Your task to perform on an android device: open app "Life360: Find Family & Friends" (install if not already installed) and go to login screen Image 0: 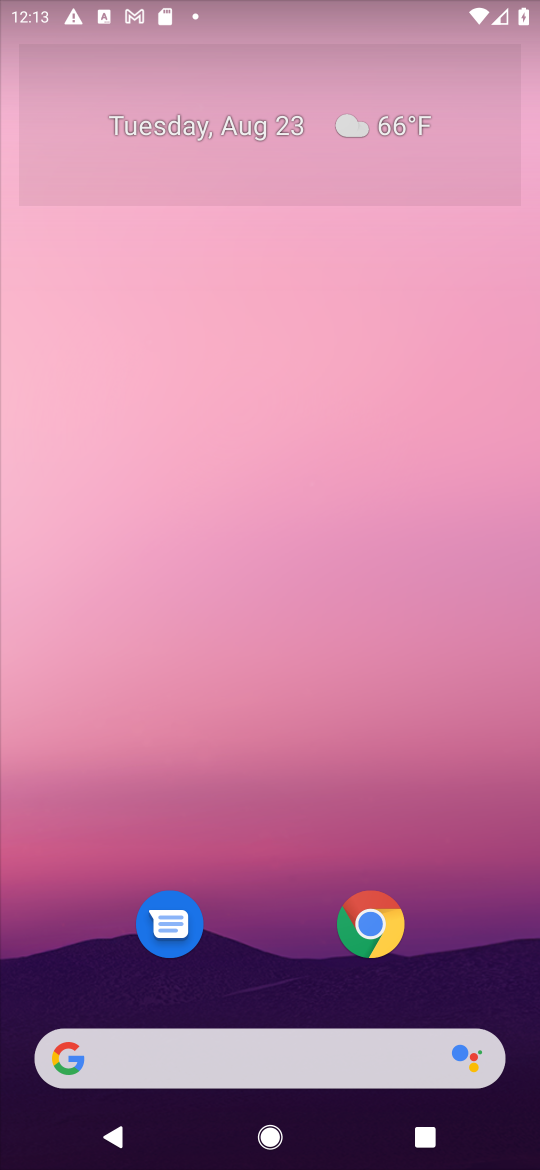
Step 0: press home button
Your task to perform on an android device: open app "Life360: Find Family & Friends" (install if not already installed) and go to login screen Image 1: 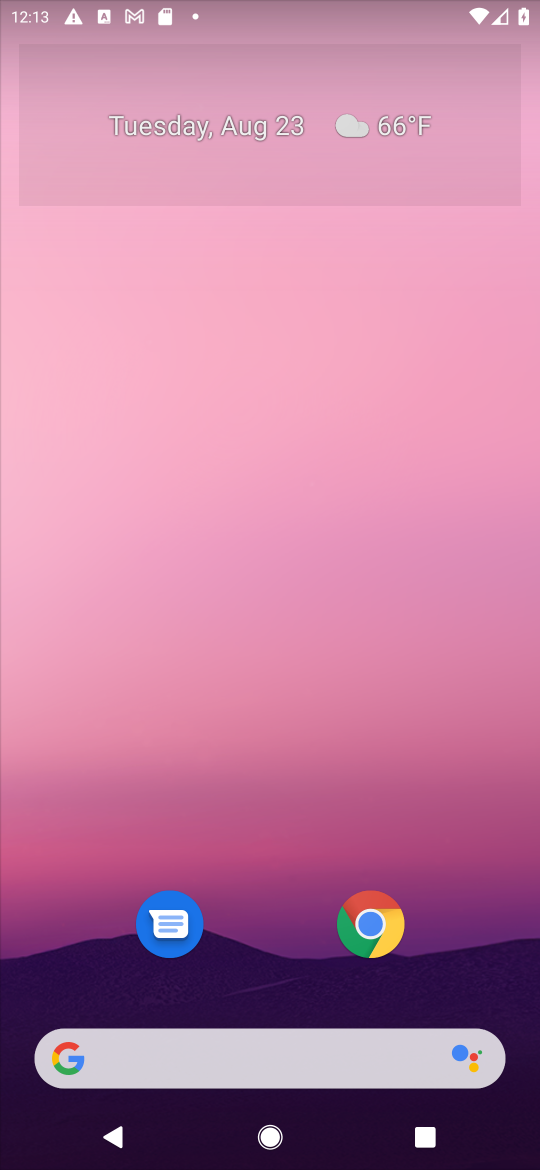
Step 1: drag from (453, 838) to (447, 170)
Your task to perform on an android device: open app "Life360: Find Family & Friends" (install if not already installed) and go to login screen Image 2: 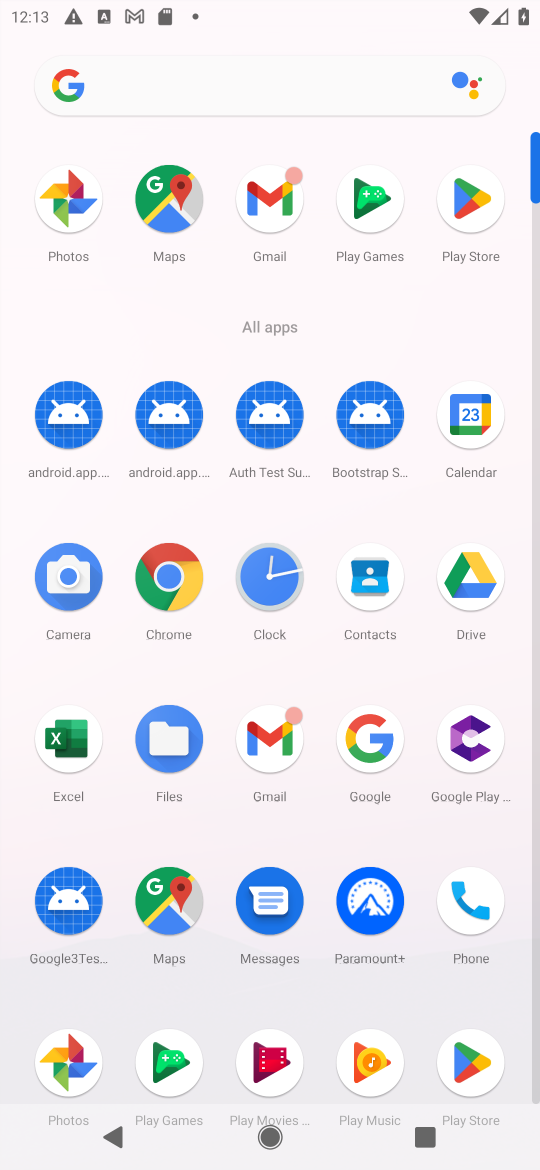
Step 2: click (464, 204)
Your task to perform on an android device: open app "Life360: Find Family & Friends" (install if not already installed) and go to login screen Image 3: 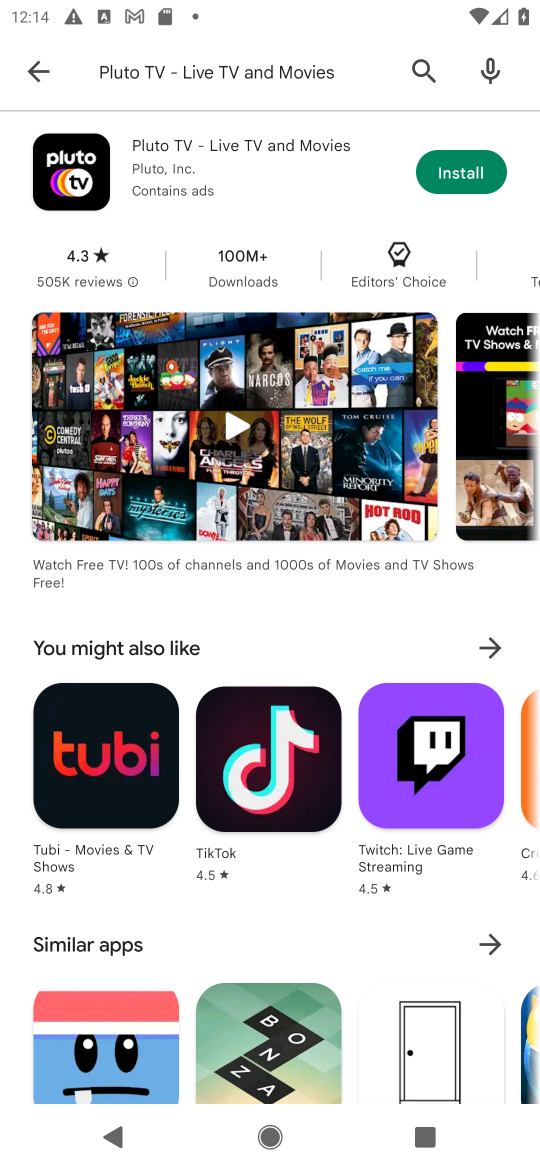
Step 3: press back button
Your task to perform on an android device: open app "Life360: Find Family & Friends" (install if not already installed) and go to login screen Image 4: 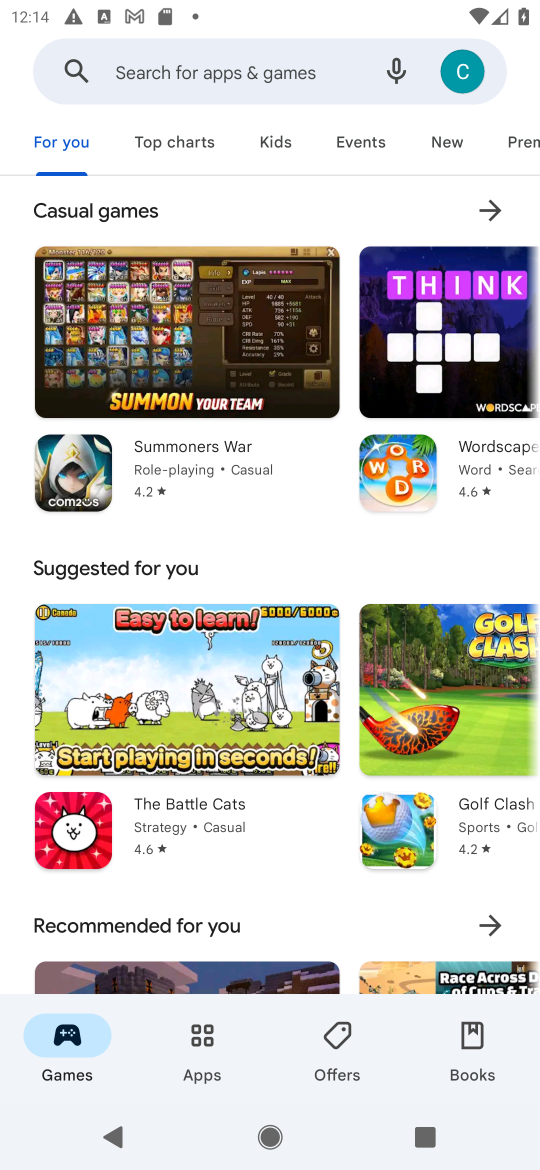
Step 4: click (190, 75)
Your task to perform on an android device: open app "Life360: Find Family & Friends" (install if not already installed) and go to login screen Image 5: 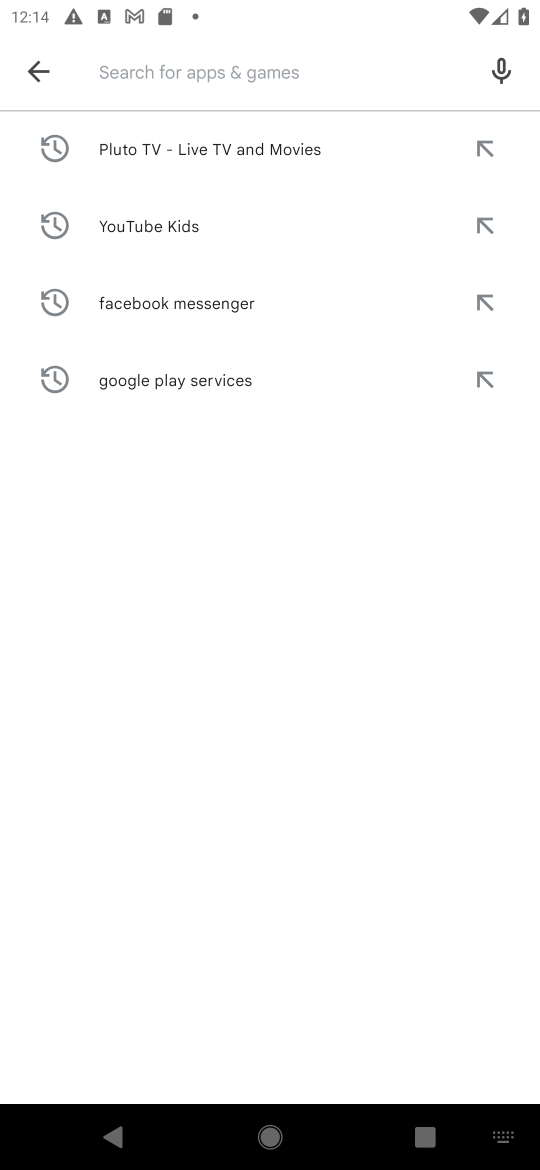
Step 5: type "Life360: Find Family & Friends"
Your task to perform on an android device: open app "Life360: Find Family & Friends" (install if not already installed) and go to login screen Image 6: 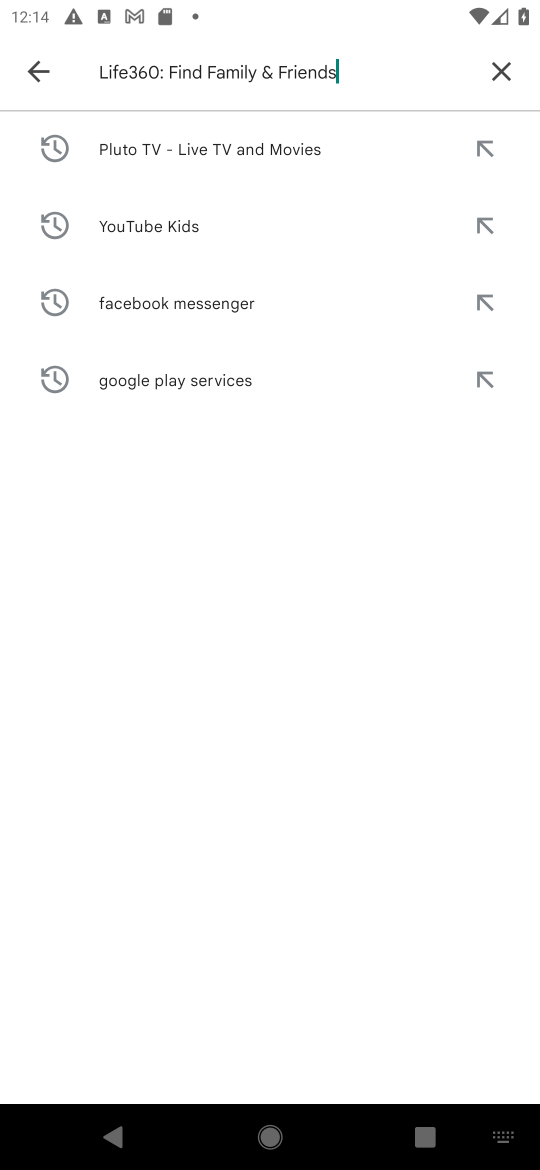
Step 6: press enter
Your task to perform on an android device: open app "Life360: Find Family & Friends" (install if not already installed) and go to login screen Image 7: 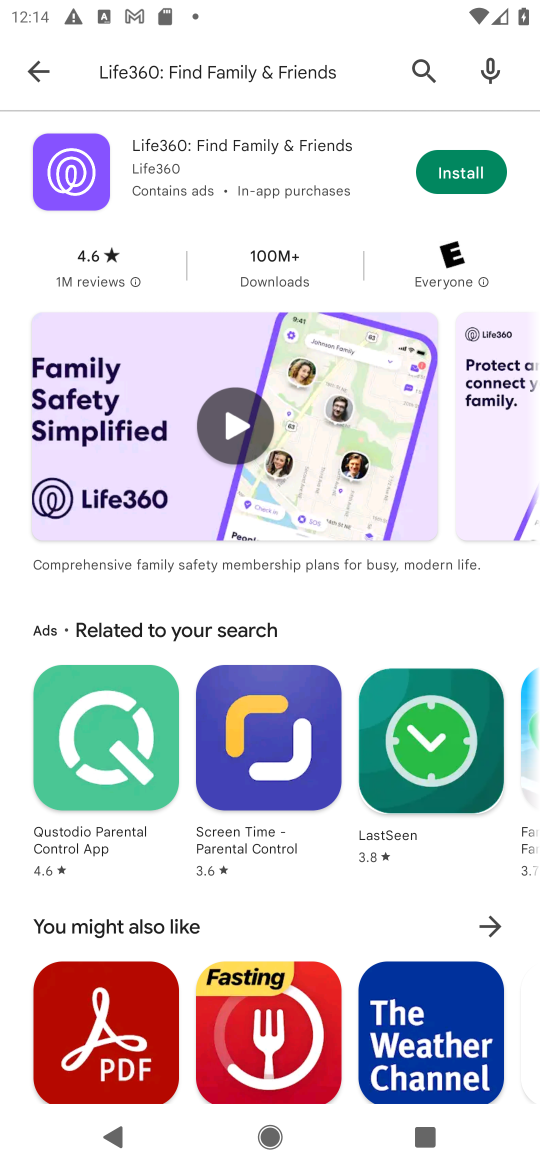
Step 7: click (477, 170)
Your task to perform on an android device: open app "Life360: Find Family & Friends" (install if not already installed) and go to login screen Image 8: 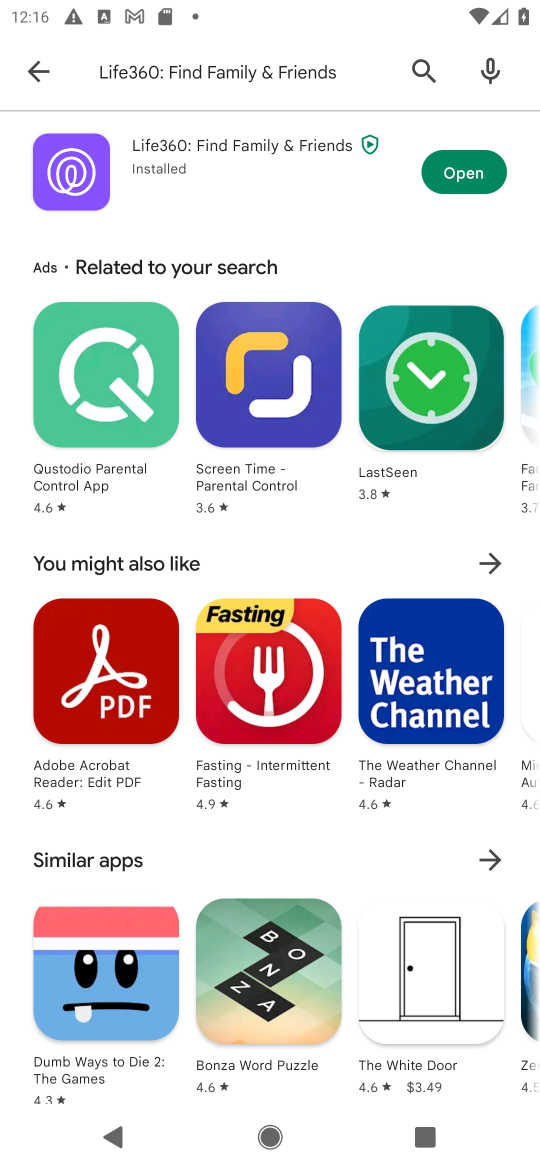
Step 8: click (457, 181)
Your task to perform on an android device: open app "Life360: Find Family & Friends" (install if not already installed) and go to login screen Image 9: 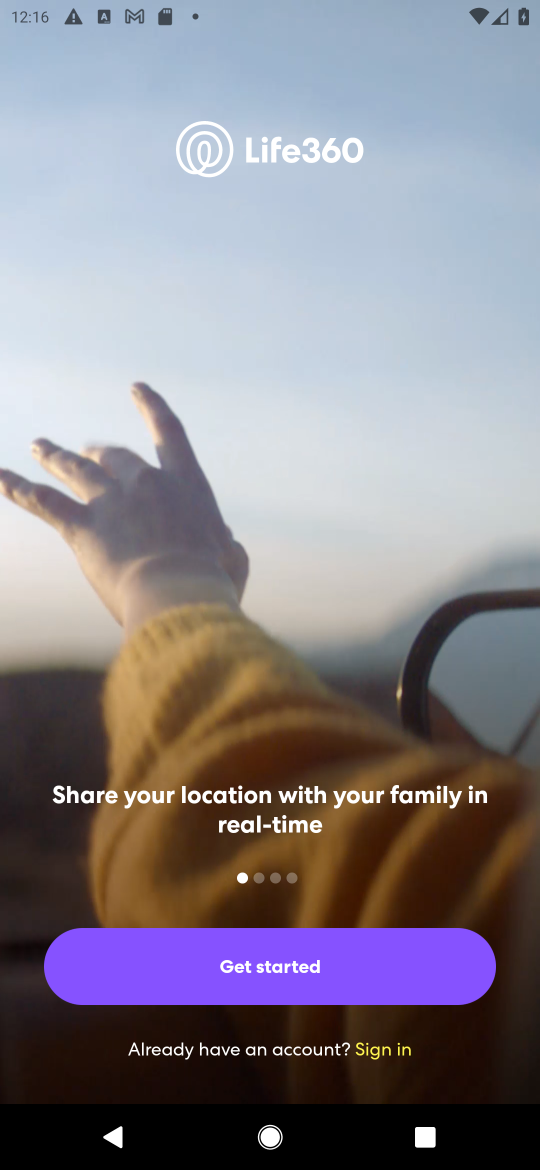
Step 9: click (295, 976)
Your task to perform on an android device: open app "Life360: Find Family & Friends" (install if not already installed) and go to login screen Image 10: 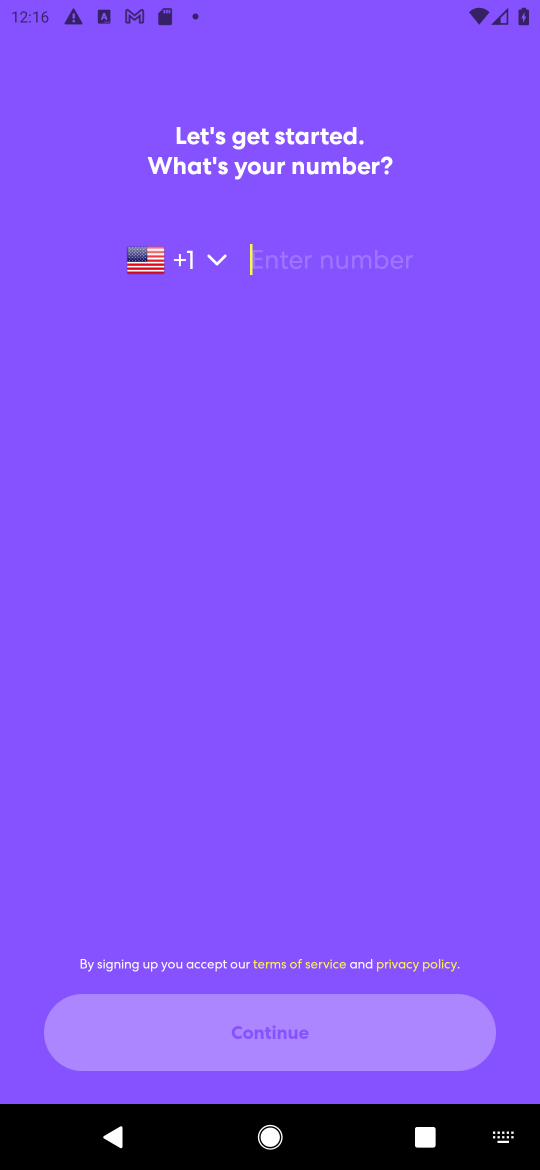
Step 10: press back button
Your task to perform on an android device: open app "Life360: Find Family & Friends" (install if not already installed) and go to login screen Image 11: 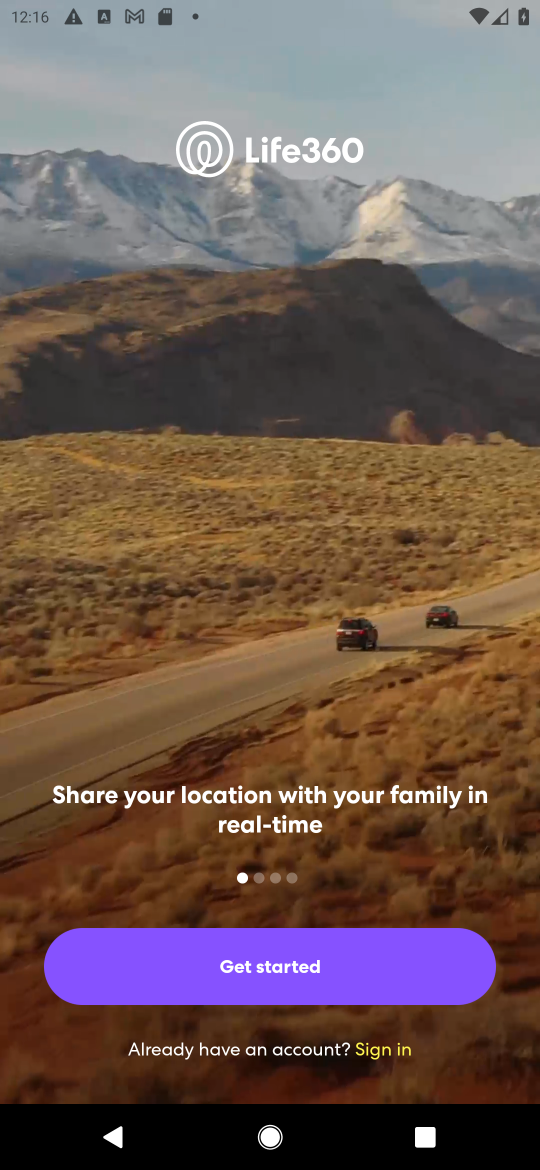
Step 11: click (386, 1055)
Your task to perform on an android device: open app "Life360: Find Family & Friends" (install if not already installed) and go to login screen Image 12: 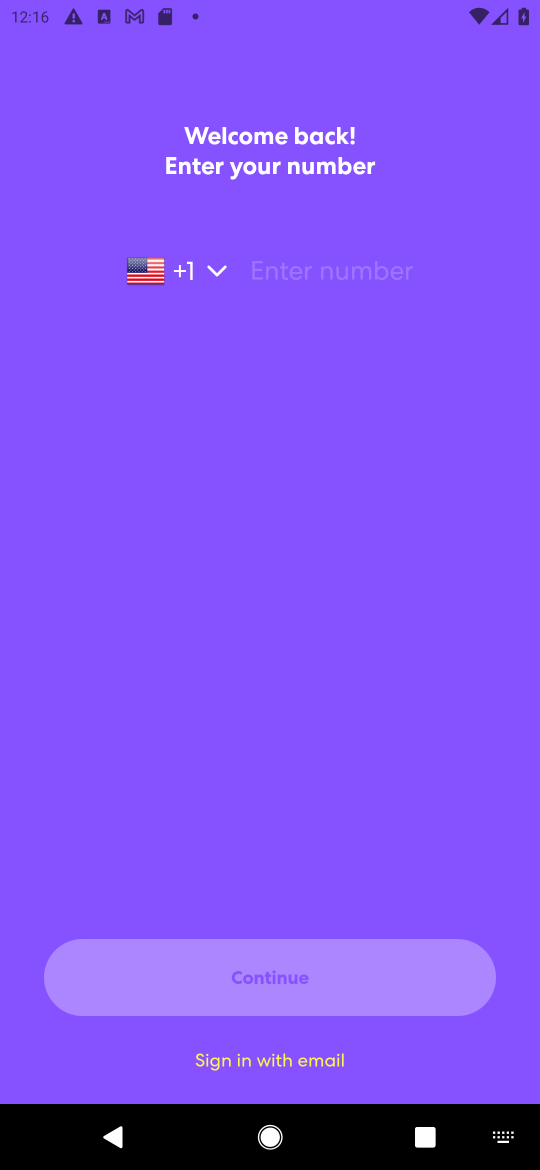
Step 12: task complete